Your task to perform on an android device: clear history in the chrome app Image 0: 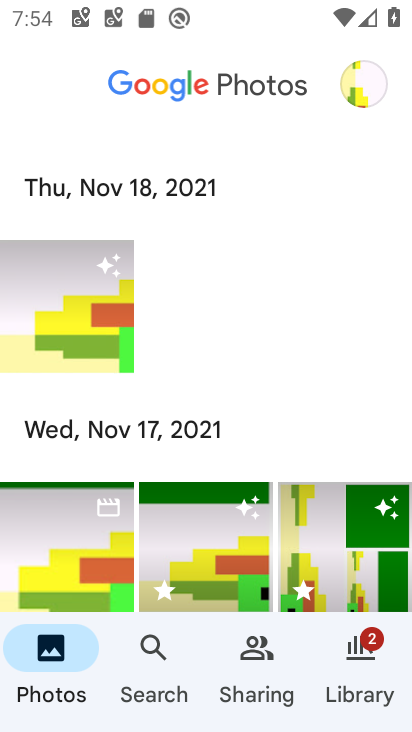
Step 0: press home button
Your task to perform on an android device: clear history in the chrome app Image 1: 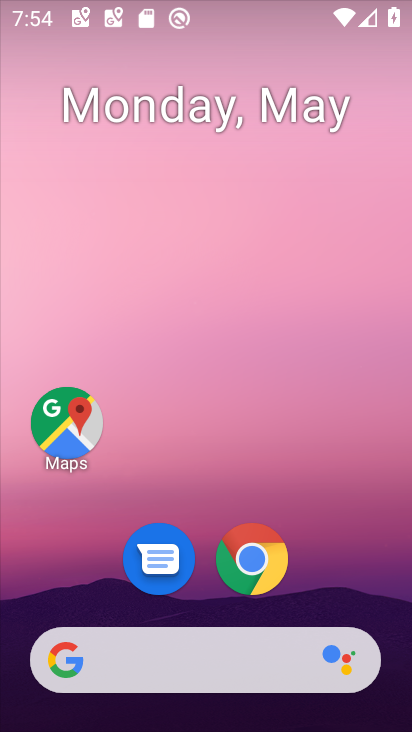
Step 1: drag from (390, 613) to (391, 8)
Your task to perform on an android device: clear history in the chrome app Image 2: 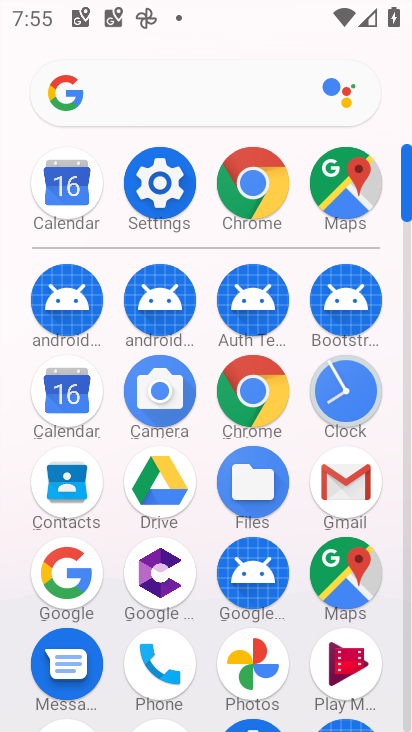
Step 2: click (241, 409)
Your task to perform on an android device: clear history in the chrome app Image 3: 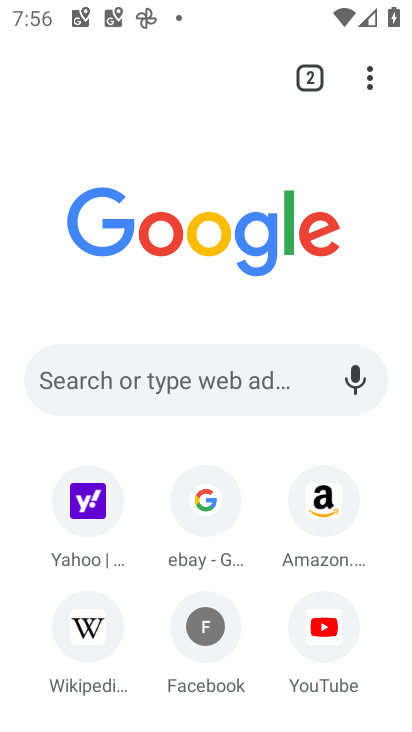
Step 3: click (376, 77)
Your task to perform on an android device: clear history in the chrome app Image 4: 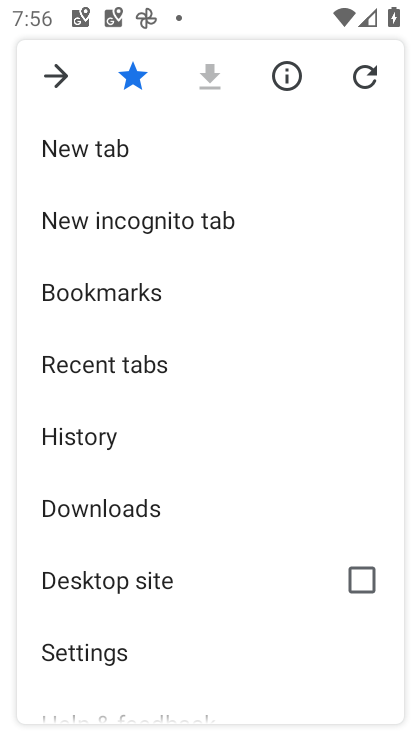
Step 4: click (165, 438)
Your task to perform on an android device: clear history in the chrome app Image 5: 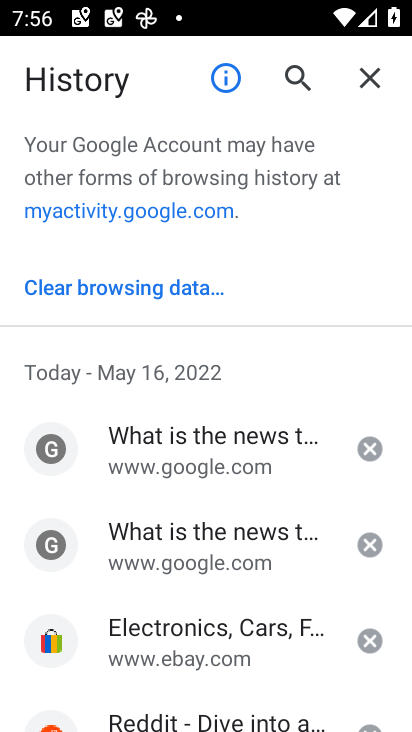
Step 5: click (139, 284)
Your task to perform on an android device: clear history in the chrome app Image 6: 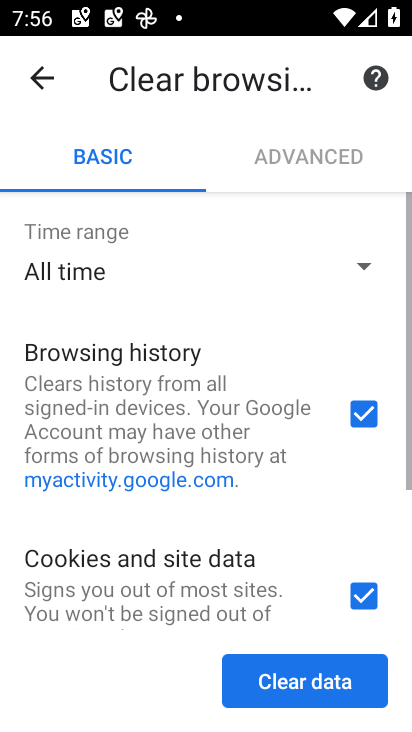
Step 6: click (286, 674)
Your task to perform on an android device: clear history in the chrome app Image 7: 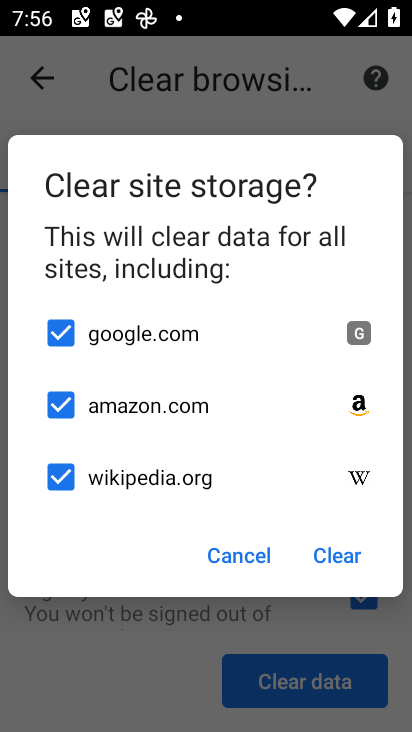
Step 7: click (326, 548)
Your task to perform on an android device: clear history in the chrome app Image 8: 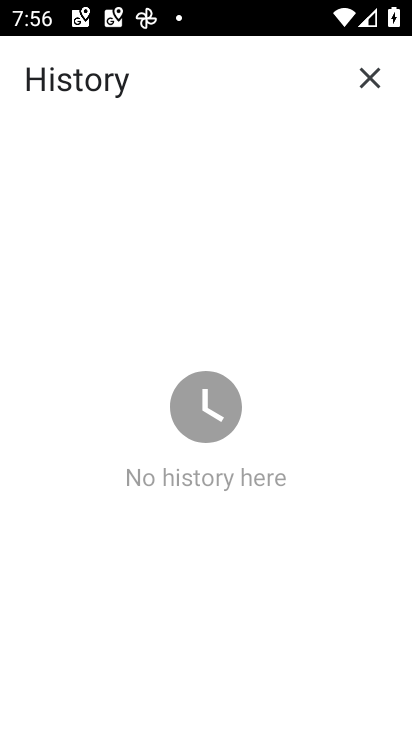
Step 8: task complete